Your task to perform on an android device: turn on the 24-hour format for clock Image 0: 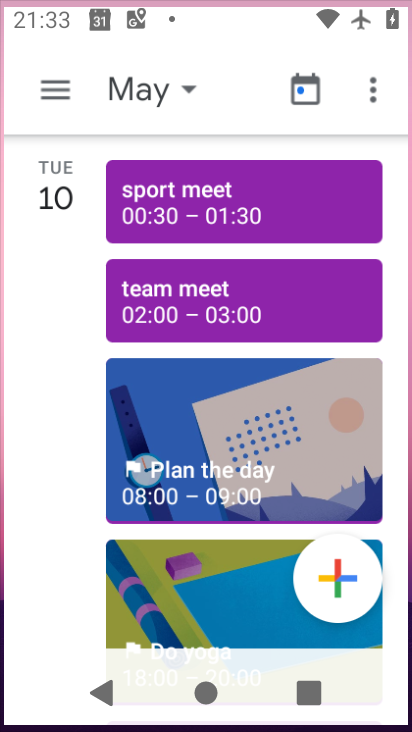
Step 0: drag from (365, 530) to (369, 174)
Your task to perform on an android device: turn on the 24-hour format for clock Image 1: 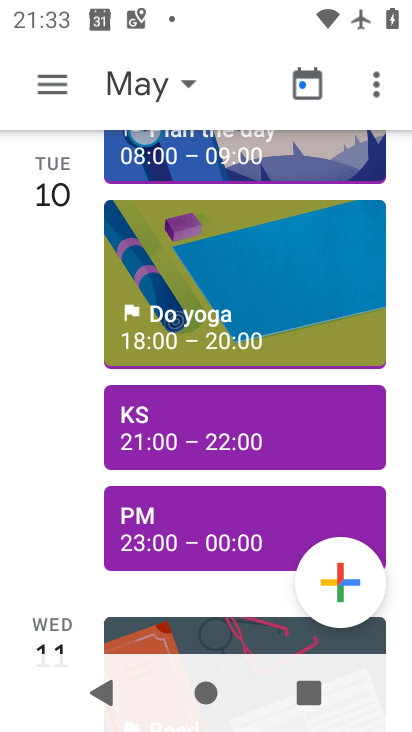
Step 1: press home button
Your task to perform on an android device: turn on the 24-hour format for clock Image 2: 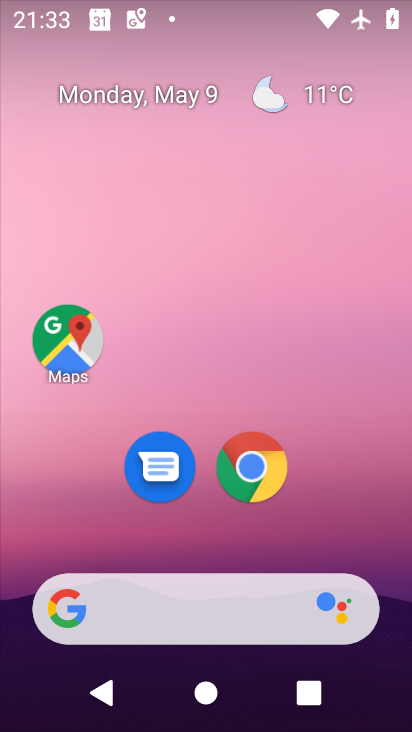
Step 2: drag from (306, 532) to (334, 191)
Your task to perform on an android device: turn on the 24-hour format for clock Image 3: 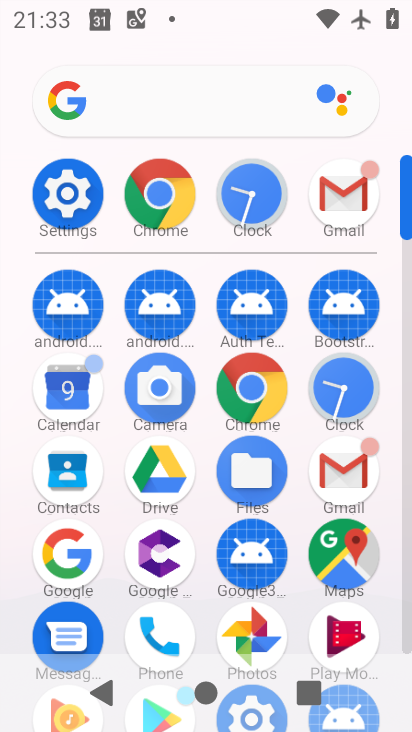
Step 3: click (353, 386)
Your task to perform on an android device: turn on the 24-hour format for clock Image 4: 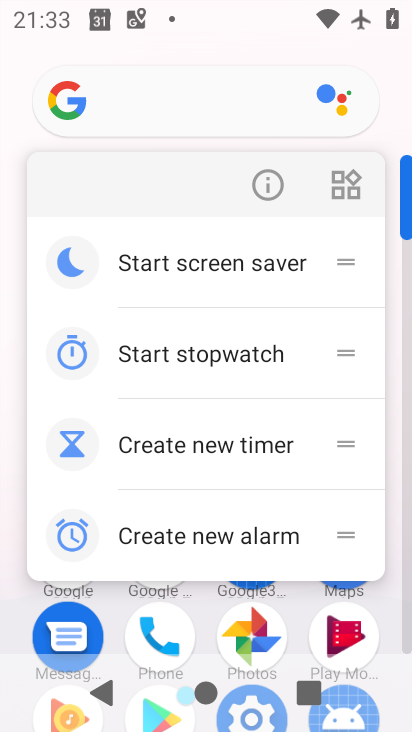
Step 4: press back button
Your task to perform on an android device: turn on the 24-hour format for clock Image 5: 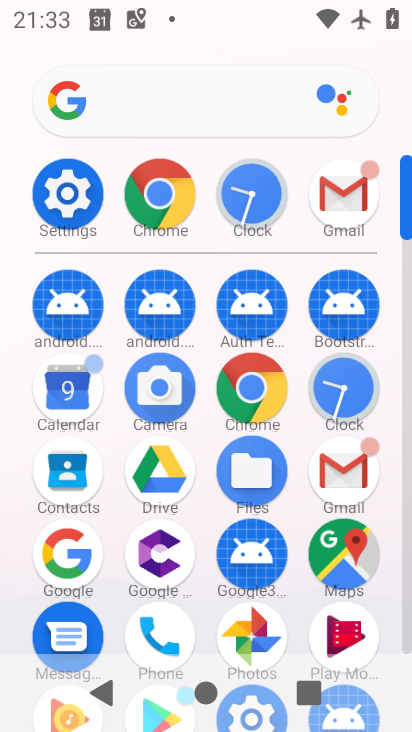
Step 5: click (334, 387)
Your task to perform on an android device: turn on the 24-hour format for clock Image 6: 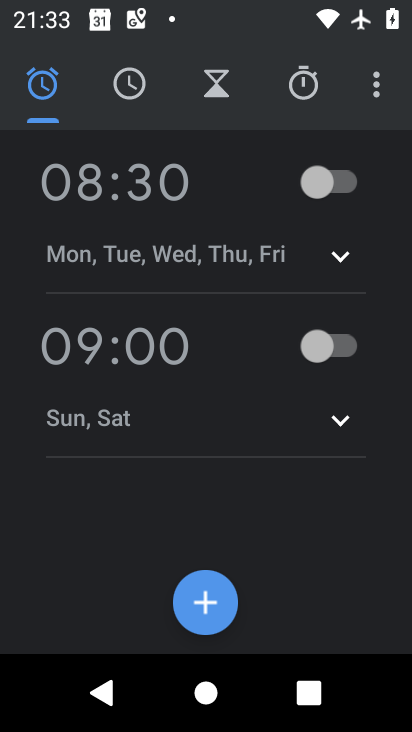
Step 6: click (358, 80)
Your task to perform on an android device: turn on the 24-hour format for clock Image 7: 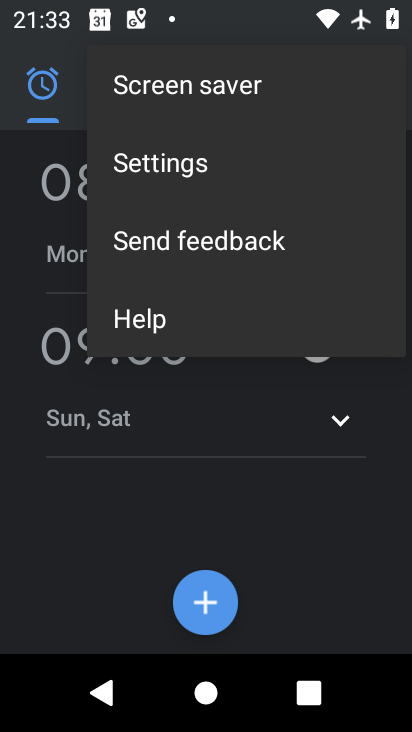
Step 7: click (221, 168)
Your task to perform on an android device: turn on the 24-hour format for clock Image 8: 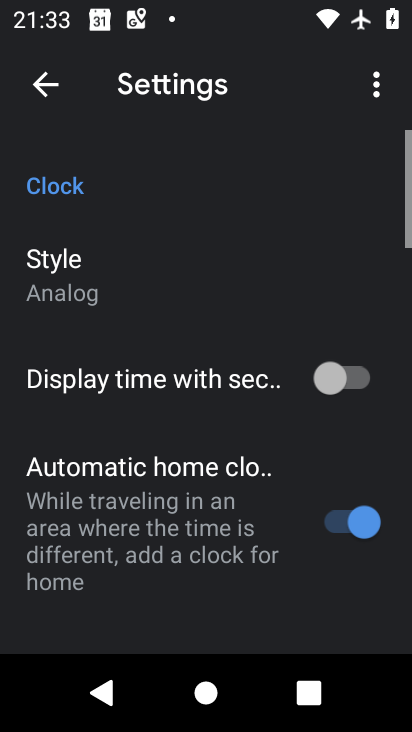
Step 8: drag from (237, 540) to (230, 173)
Your task to perform on an android device: turn on the 24-hour format for clock Image 9: 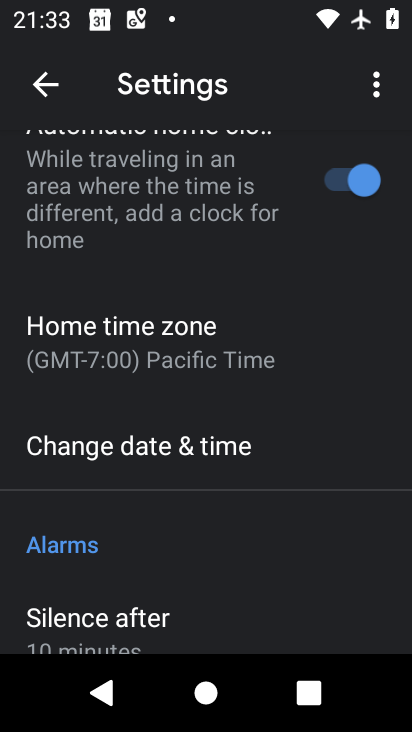
Step 9: click (175, 460)
Your task to perform on an android device: turn on the 24-hour format for clock Image 10: 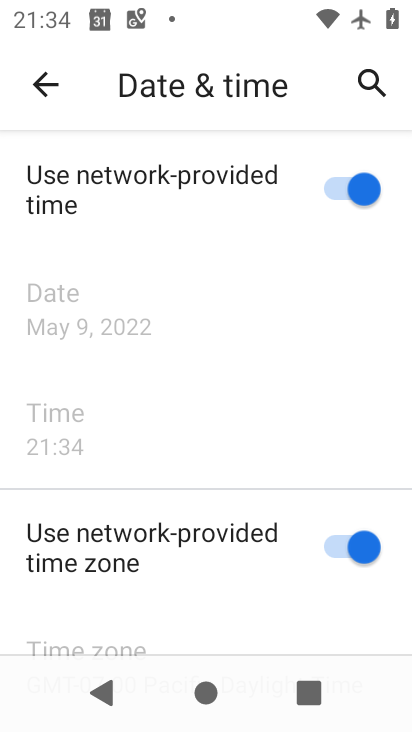
Step 10: drag from (221, 664) to (305, 291)
Your task to perform on an android device: turn on the 24-hour format for clock Image 11: 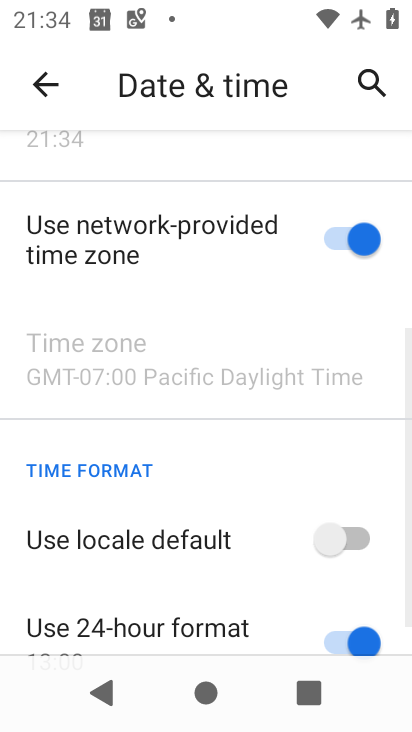
Step 11: drag from (281, 563) to (290, 367)
Your task to perform on an android device: turn on the 24-hour format for clock Image 12: 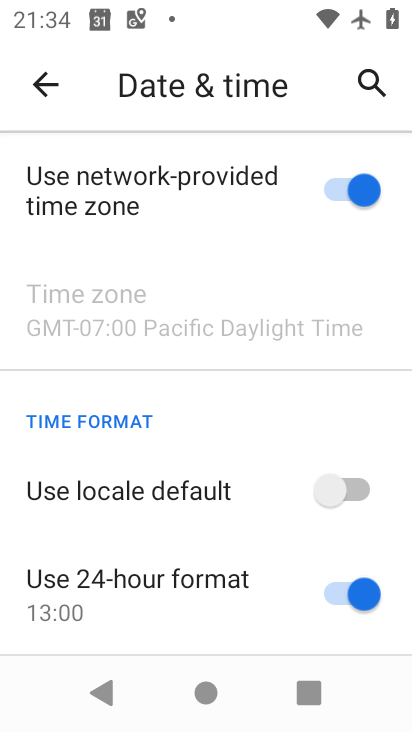
Step 12: click (290, 341)
Your task to perform on an android device: turn on the 24-hour format for clock Image 13: 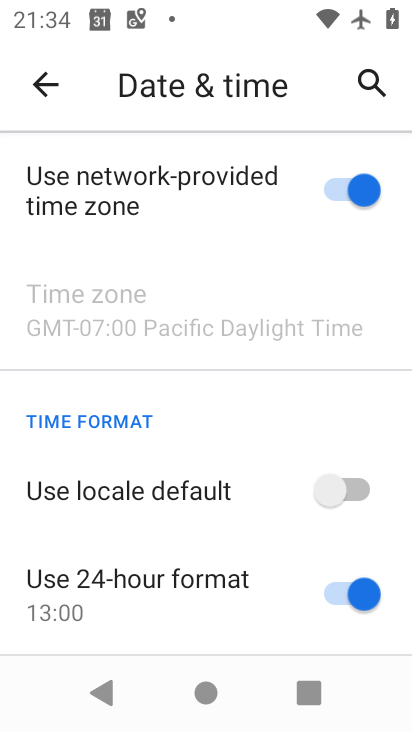
Step 13: click (290, 341)
Your task to perform on an android device: turn on the 24-hour format for clock Image 14: 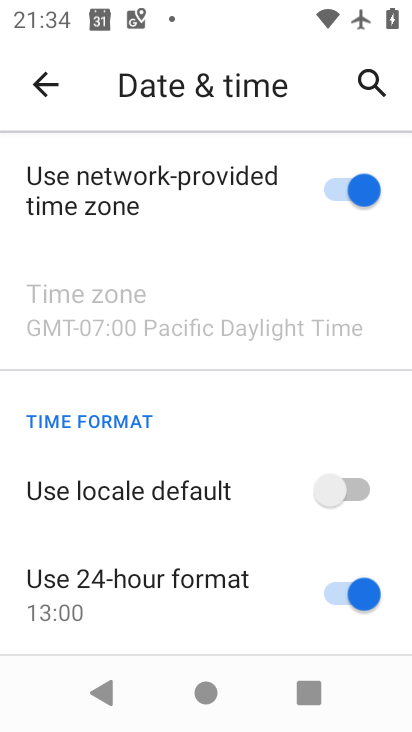
Step 14: task complete